Your task to perform on an android device: add a label to a message in the gmail app Image 0: 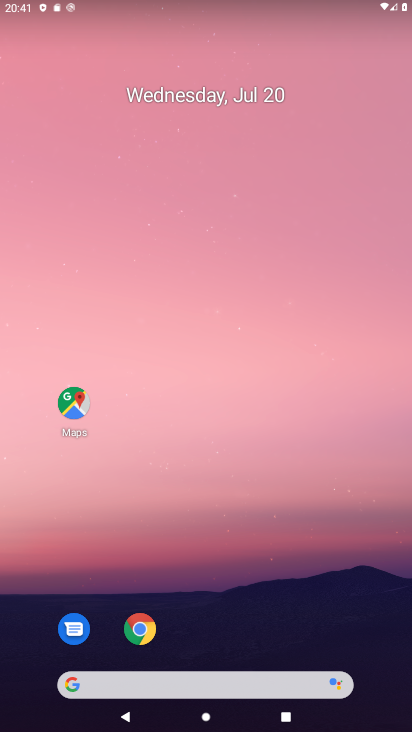
Step 0: drag from (191, 626) to (230, 30)
Your task to perform on an android device: add a label to a message in the gmail app Image 1: 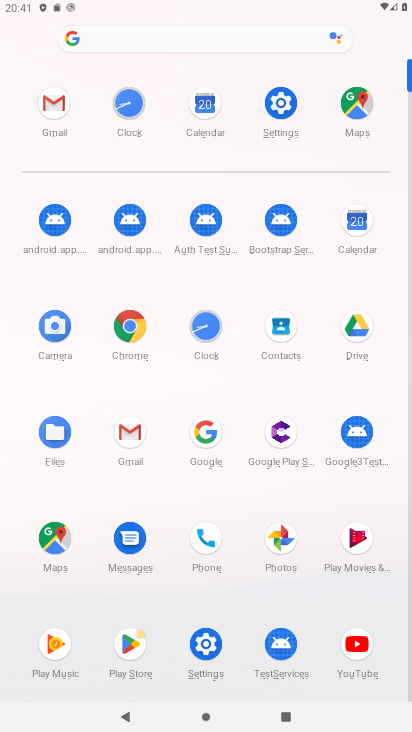
Step 1: click (51, 139)
Your task to perform on an android device: add a label to a message in the gmail app Image 2: 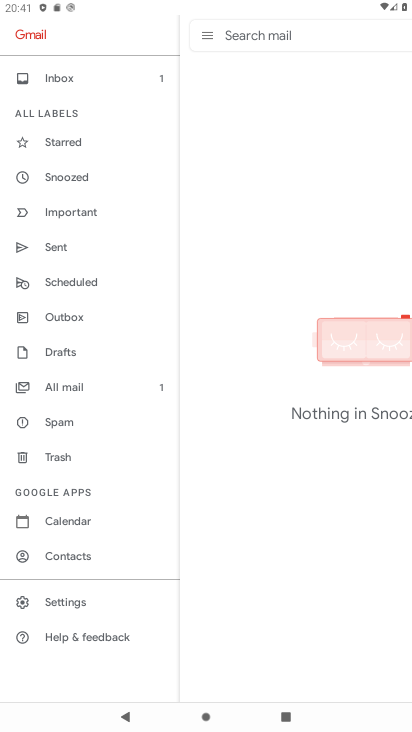
Step 2: click (81, 391)
Your task to perform on an android device: add a label to a message in the gmail app Image 3: 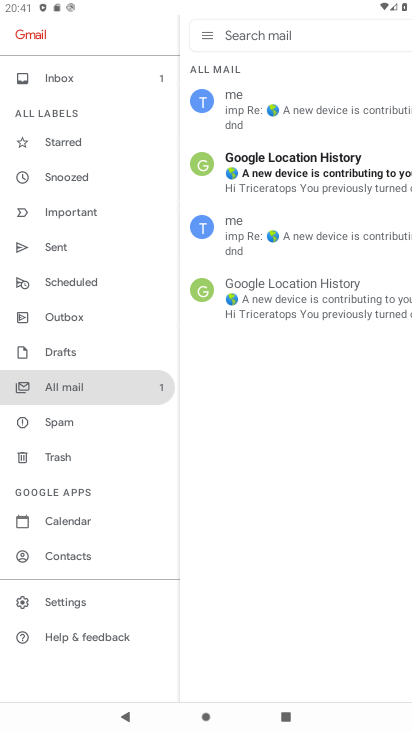
Step 3: click (287, 175)
Your task to perform on an android device: add a label to a message in the gmail app Image 4: 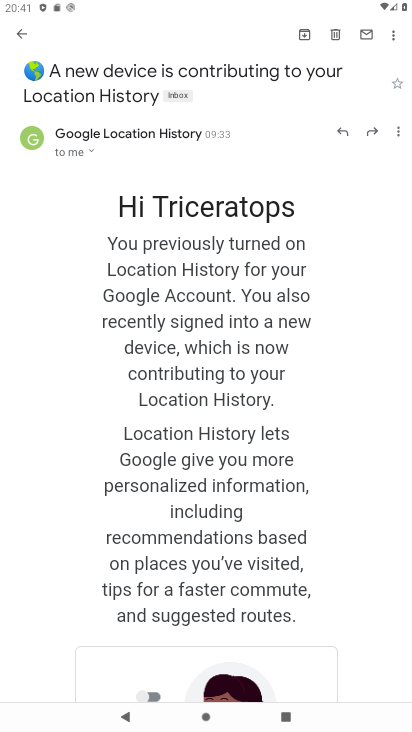
Step 4: click (395, 43)
Your task to perform on an android device: add a label to a message in the gmail app Image 5: 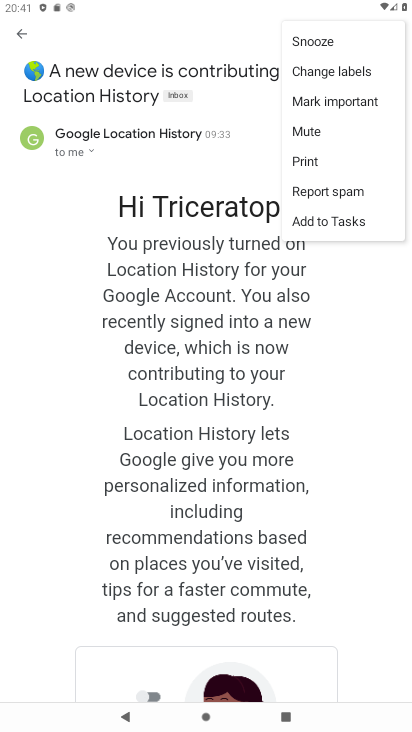
Step 5: click (338, 75)
Your task to perform on an android device: add a label to a message in the gmail app Image 6: 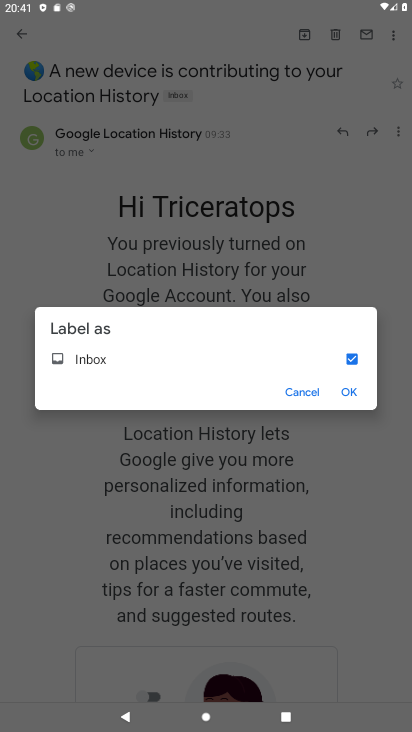
Step 6: click (345, 389)
Your task to perform on an android device: add a label to a message in the gmail app Image 7: 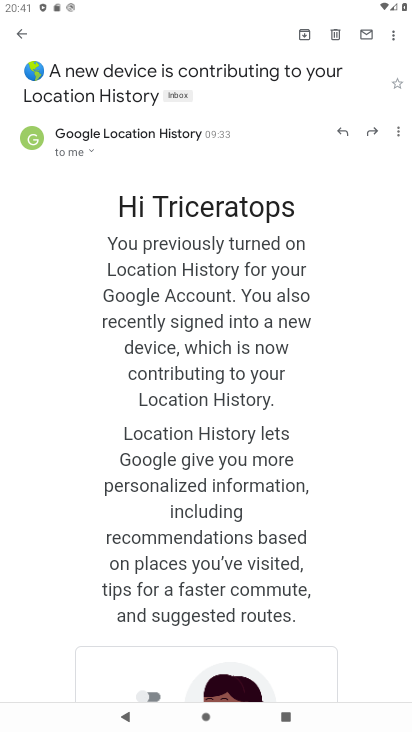
Step 7: task complete